Your task to perform on an android device: Show me productivity apps on the Play Store Image 0: 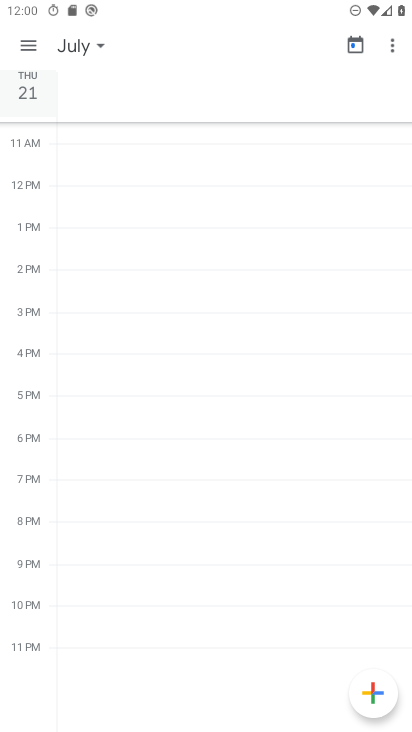
Step 0: press home button
Your task to perform on an android device: Show me productivity apps on the Play Store Image 1: 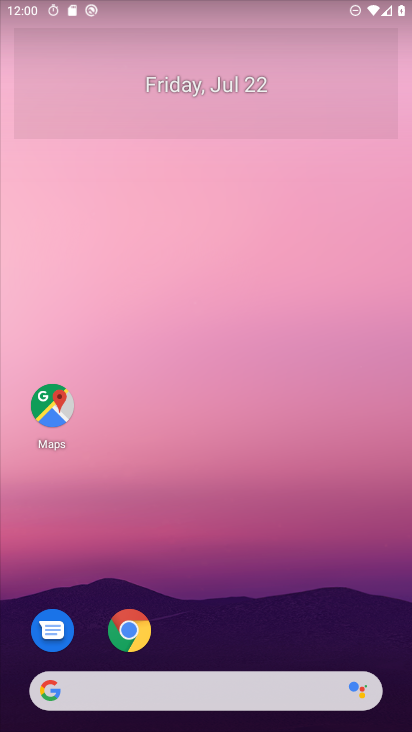
Step 1: drag from (241, 632) to (251, 97)
Your task to perform on an android device: Show me productivity apps on the Play Store Image 2: 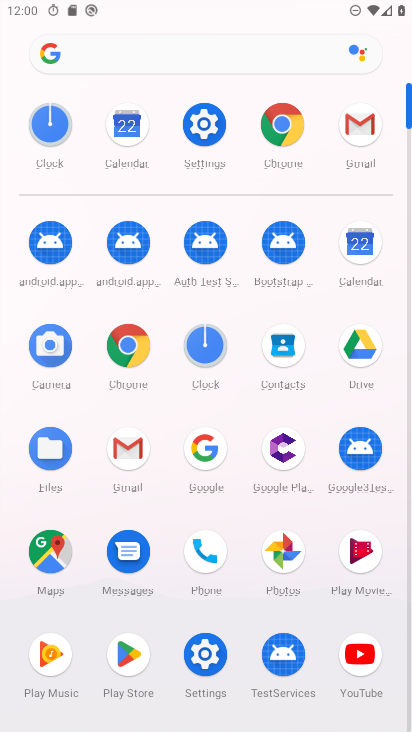
Step 2: click (121, 647)
Your task to perform on an android device: Show me productivity apps on the Play Store Image 3: 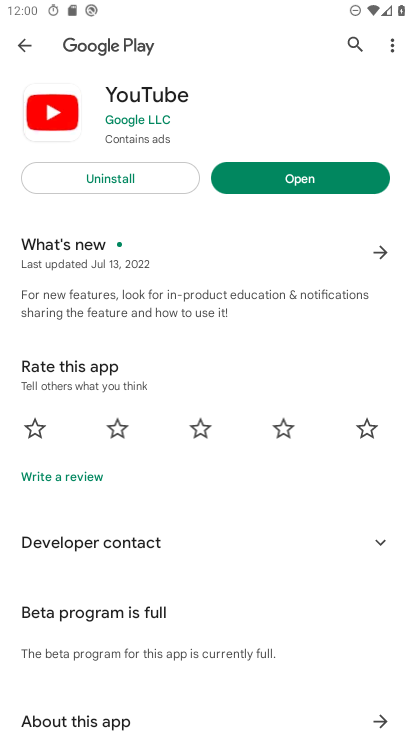
Step 3: click (16, 40)
Your task to perform on an android device: Show me productivity apps on the Play Store Image 4: 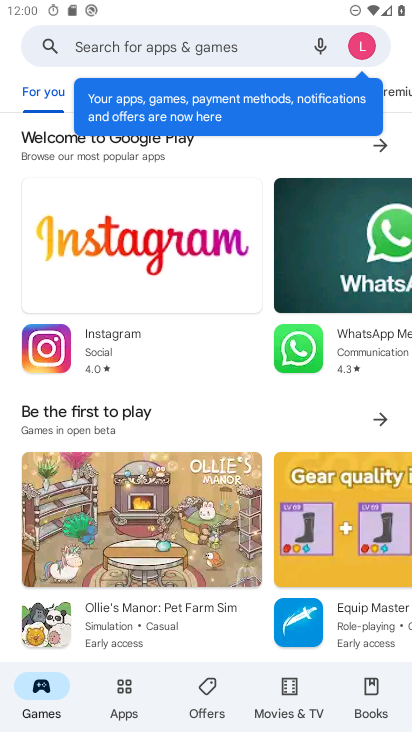
Step 4: click (121, 685)
Your task to perform on an android device: Show me productivity apps on the Play Store Image 5: 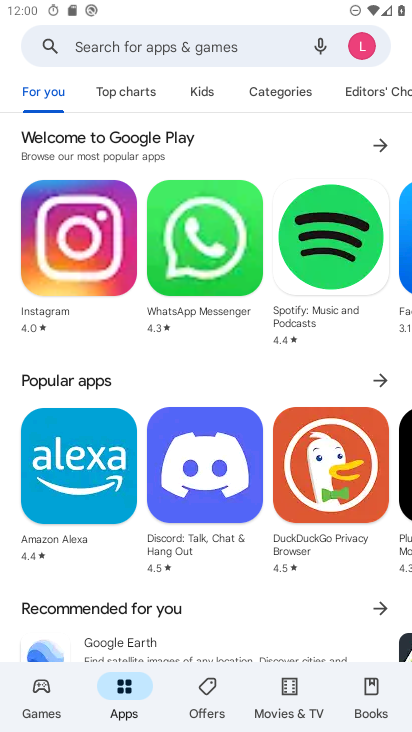
Step 5: click (277, 87)
Your task to perform on an android device: Show me productivity apps on the Play Store Image 6: 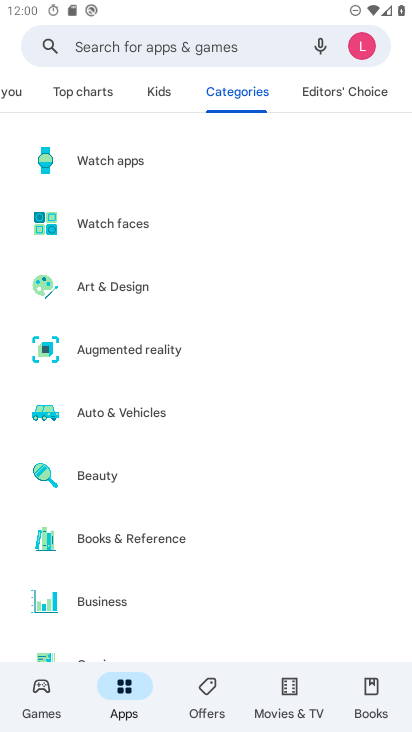
Step 6: drag from (173, 572) to (183, 171)
Your task to perform on an android device: Show me productivity apps on the Play Store Image 7: 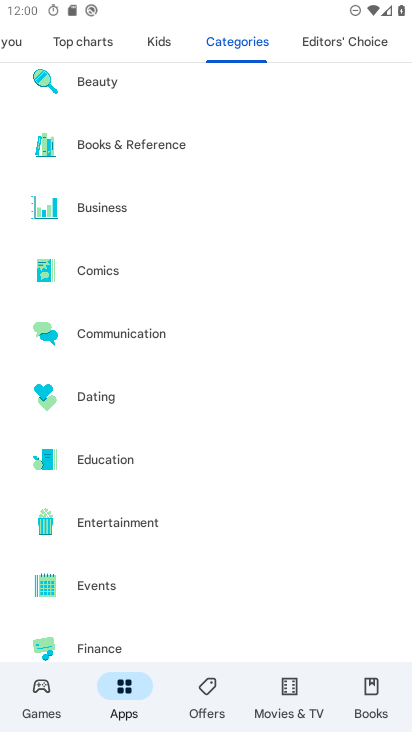
Step 7: drag from (99, 619) to (125, 238)
Your task to perform on an android device: Show me productivity apps on the Play Store Image 8: 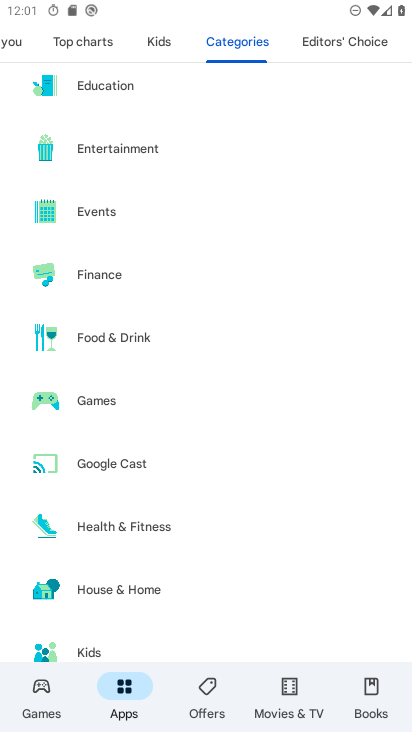
Step 8: drag from (162, 624) to (198, 198)
Your task to perform on an android device: Show me productivity apps on the Play Store Image 9: 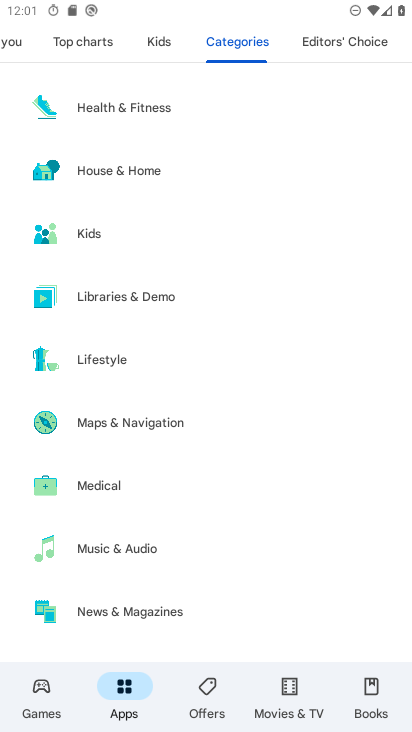
Step 9: drag from (216, 588) to (193, 87)
Your task to perform on an android device: Show me productivity apps on the Play Store Image 10: 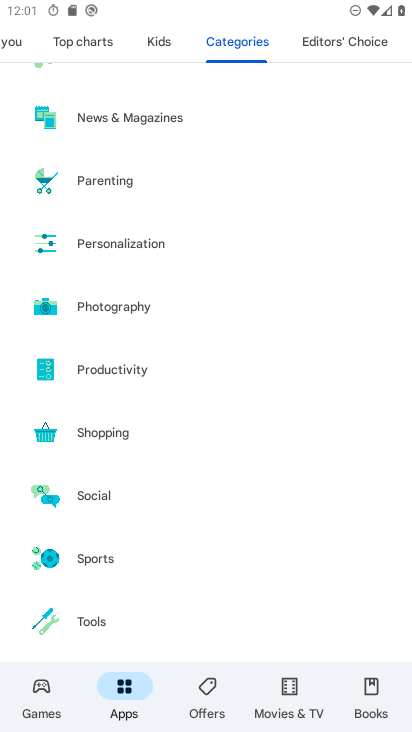
Step 10: click (114, 368)
Your task to perform on an android device: Show me productivity apps on the Play Store Image 11: 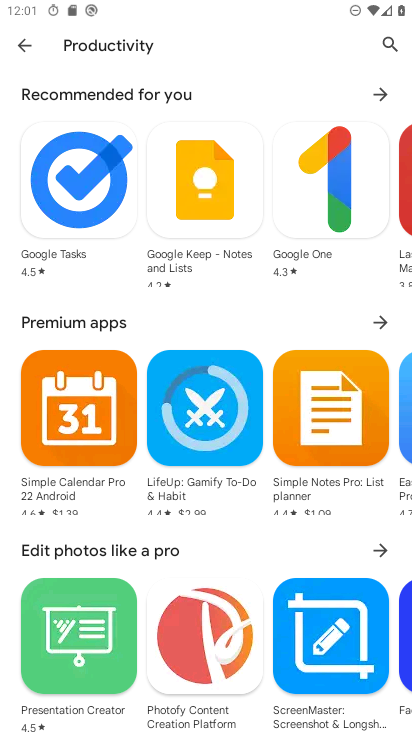
Step 11: task complete